Your task to perform on an android device: Open Chrome and go to settings Image 0: 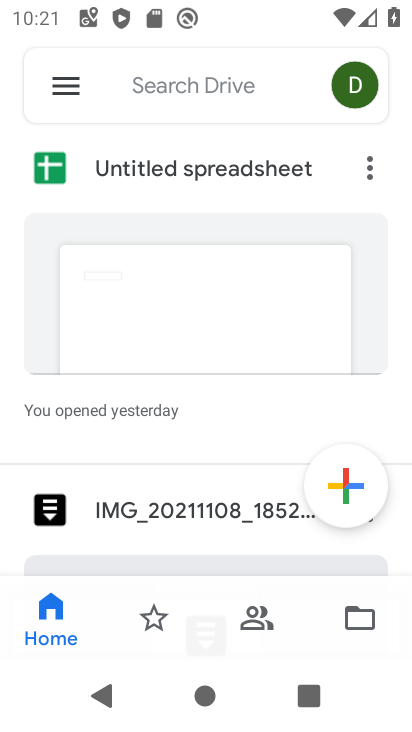
Step 0: press home button
Your task to perform on an android device: Open Chrome and go to settings Image 1: 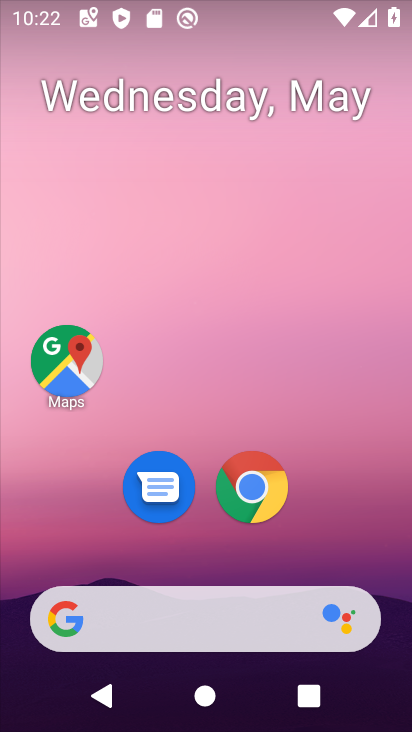
Step 1: drag from (193, 552) to (166, 18)
Your task to perform on an android device: Open Chrome and go to settings Image 2: 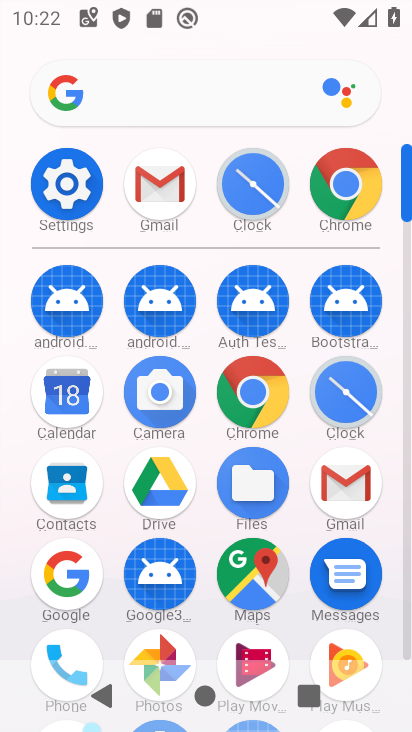
Step 2: click (338, 170)
Your task to perform on an android device: Open Chrome and go to settings Image 3: 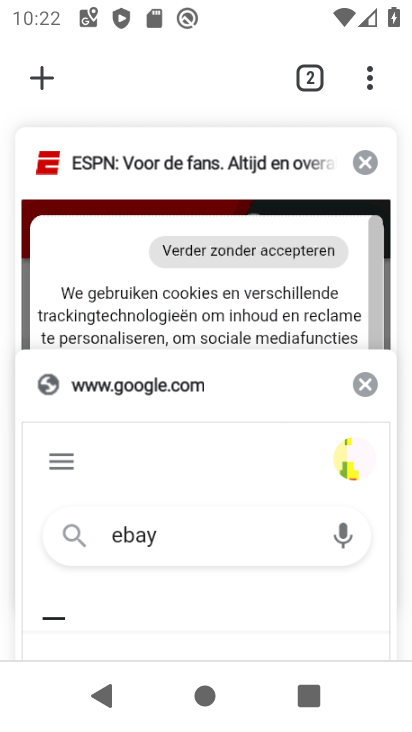
Step 3: click (368, 95)
Your task to perform on an android device: Open Chrome and go to settings Image 4: 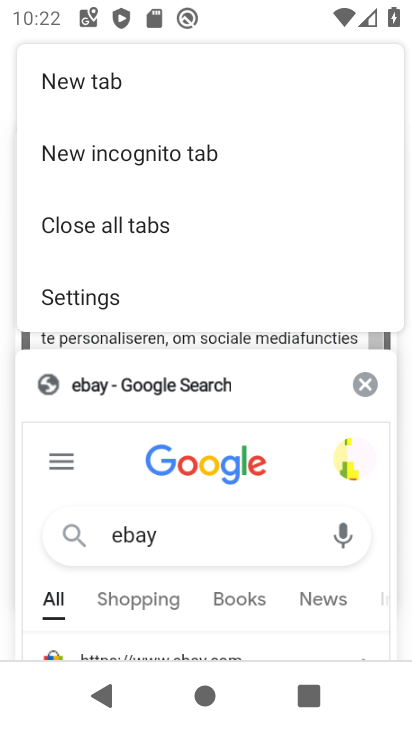
Step 4: click (96, 289)
Your task to perform on an android device: Open Chrome and go to settings Image 5: 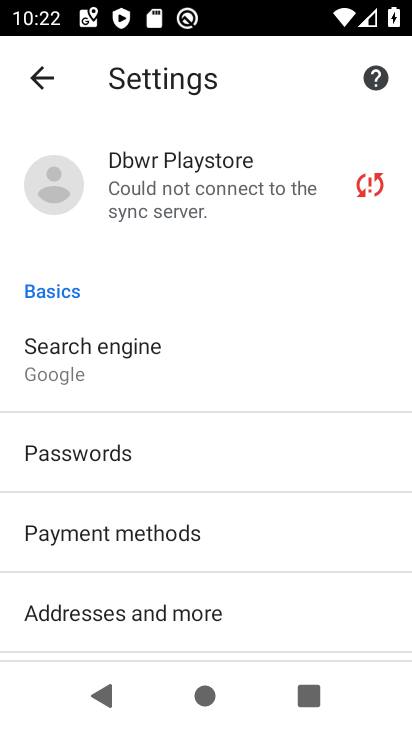
Step 5: task complete